Your task to perform on an android device: Go to wifi settings Image 0: 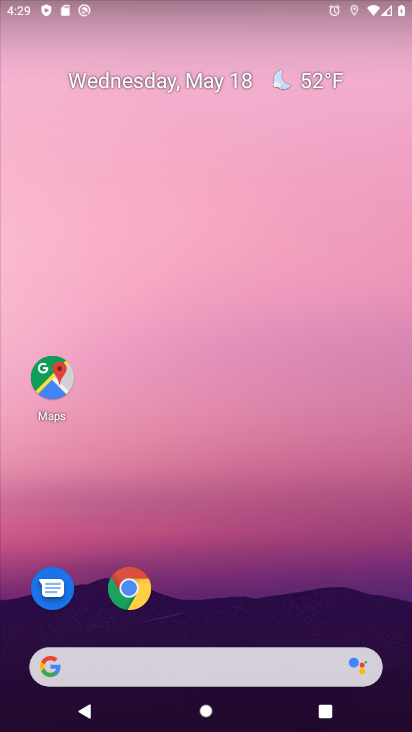
Step 0: drag from (311, 570) to (284, 164)
Your task to perform on an android device: Go to wifi settings Image 1: 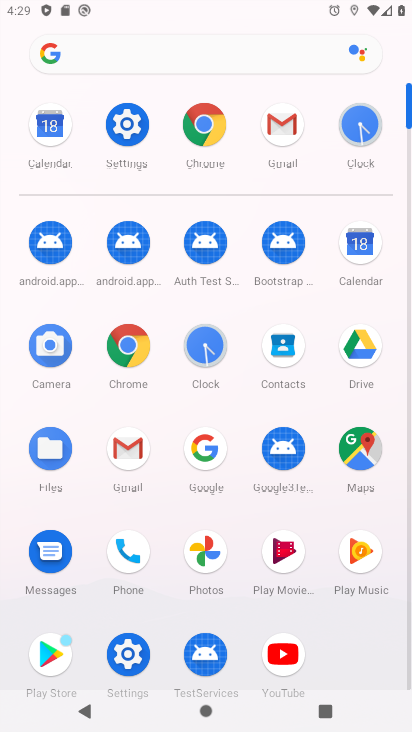
Step 1: click (112, 660)
Your task to perform on an android device: Go to wifi settings Image 2: 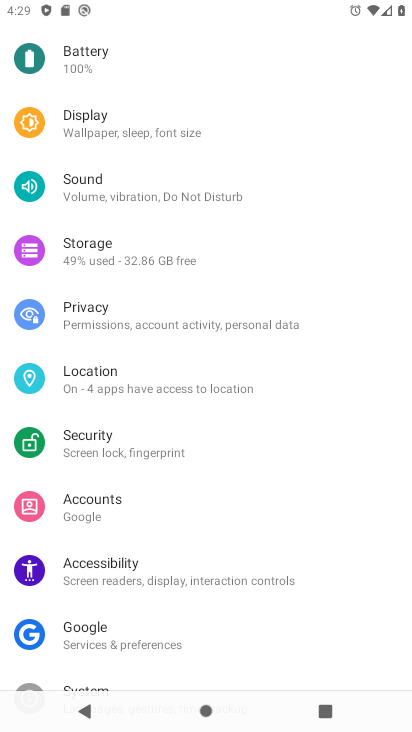
Step 2: drag from (159, 166) to (150, 567)
Your task to perform on an android device: Go to wifi settings Image 3: 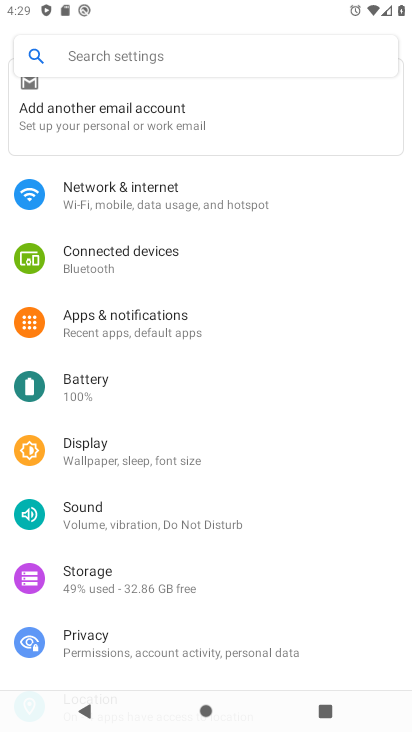
Step 3: click (178, 201)
Your task to perform on an android device: Go to wifi settings Image 4: 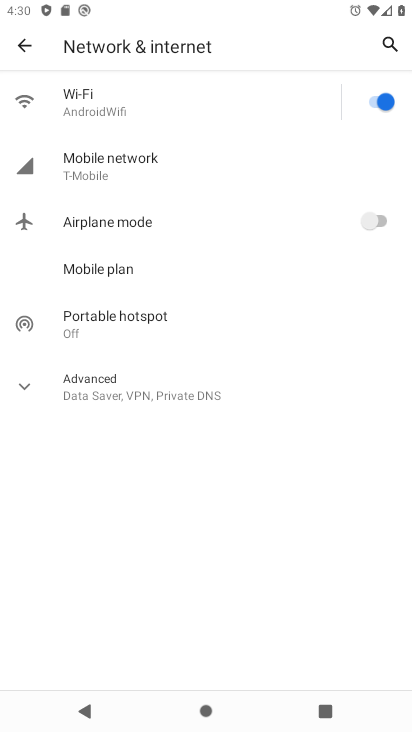
Step 4: click (146, 99)
Your task to perform on an android device: Go to wifi settings Image 5: 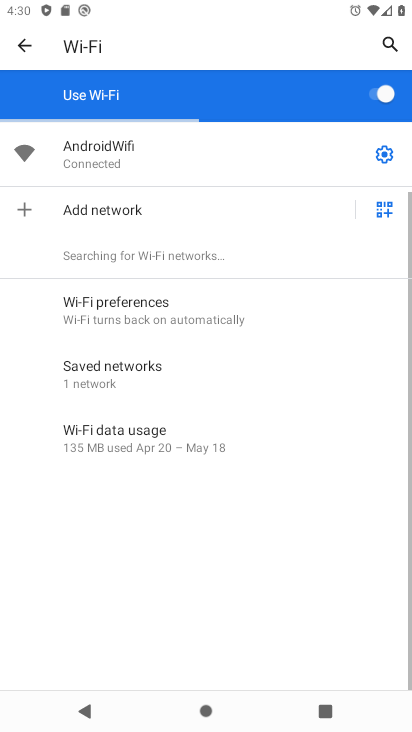
Step 5: click (382, 159)
Your task to perform on an android device: Go to wifi settings Image 6: 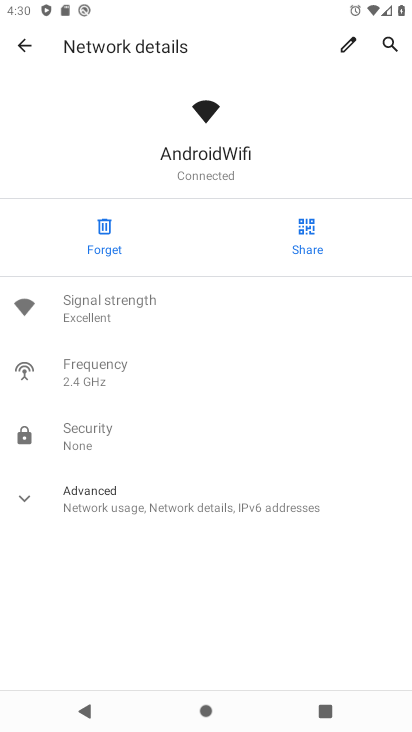
Step 6: task complete